Your task to perform on an android device: turn off sleep mode Image 0: 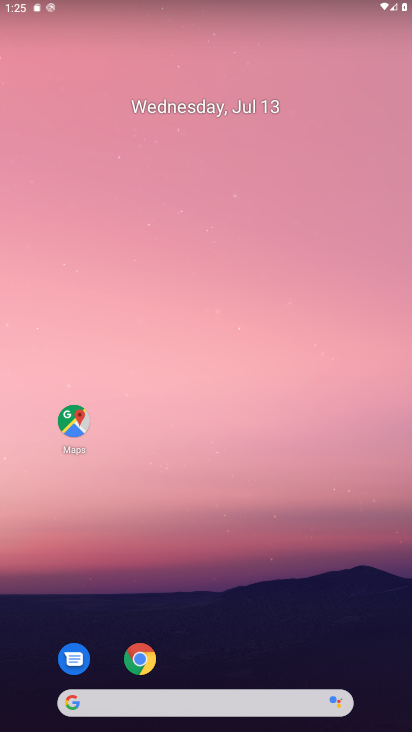
Step 0: drag from (217, 672) to (269, 170)
Your task to perform on an android device: turn off sleep mode Image 1: 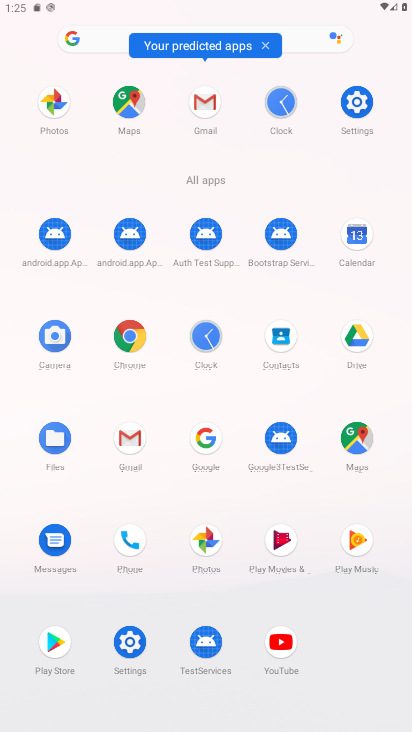
Step 1: click (146, 636)
Your task to perform on an android device: turn off sleep mode Image 2: 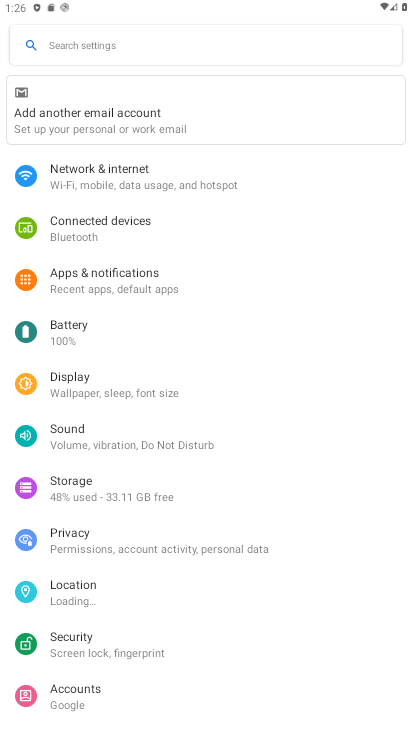
Step 2: click (104, 391)
Your task to perform on an android device: turn off sleep mode Image 3: 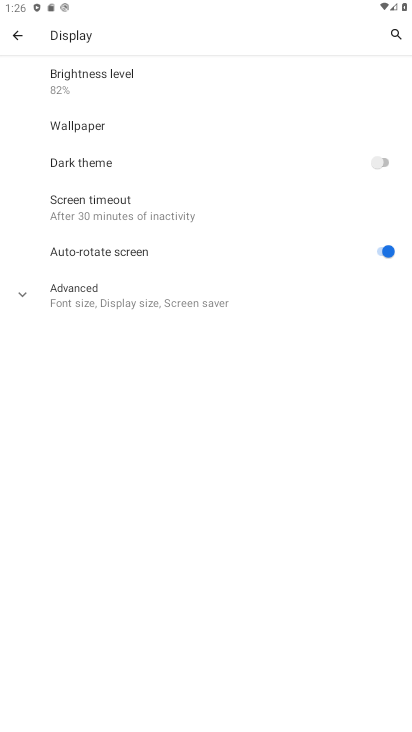
Step 3: click (132, 297)
Your task to perform on an android device: turn off sleep mode Image 4: 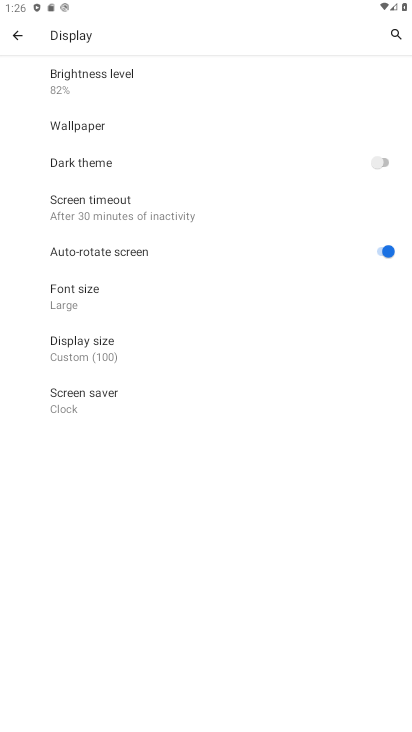
Step 4: task complete